Your task to perform on an android device: Open the phone app and click the voicemail tab. Image 0: 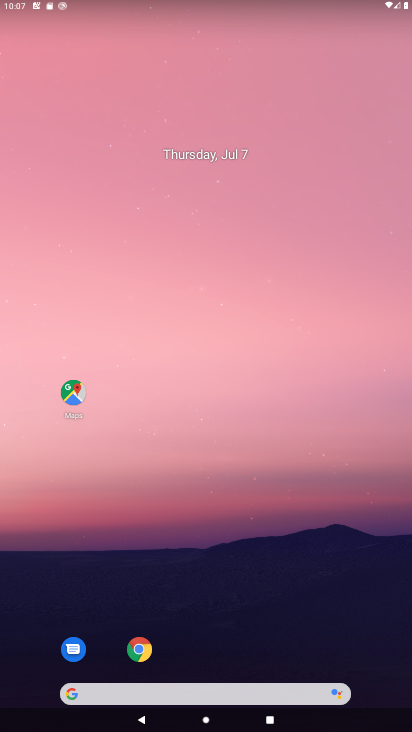
Step 0: drag from (284, 645) to (266, 296)
Your task to perform on an android device: Open the phone app and click the voicemail tab. Image 1: 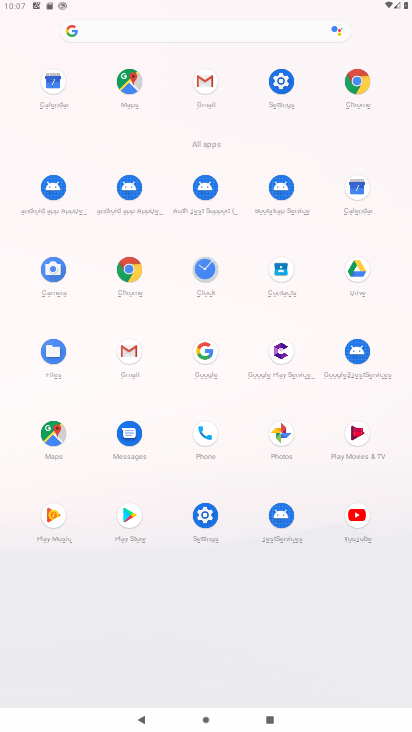
Step 1: click (207, 434)
Your task to perform on an android device: Open the phone app and click the voicemail tab. Image 2: 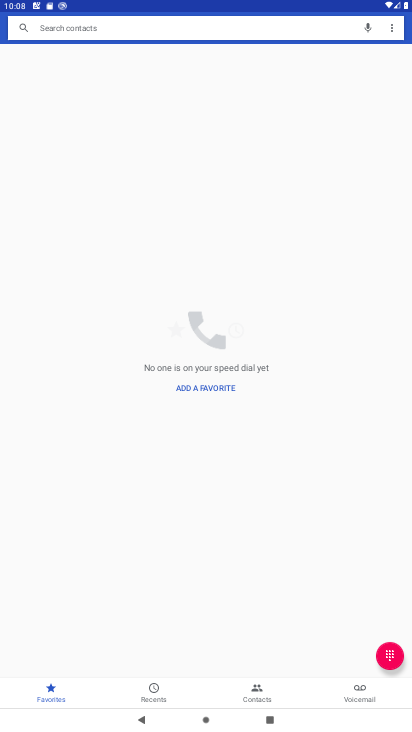
Step 2: click (356, 689)
Your task to perform on an android device: Open the phone app and click the voicemail tab. Image 3: 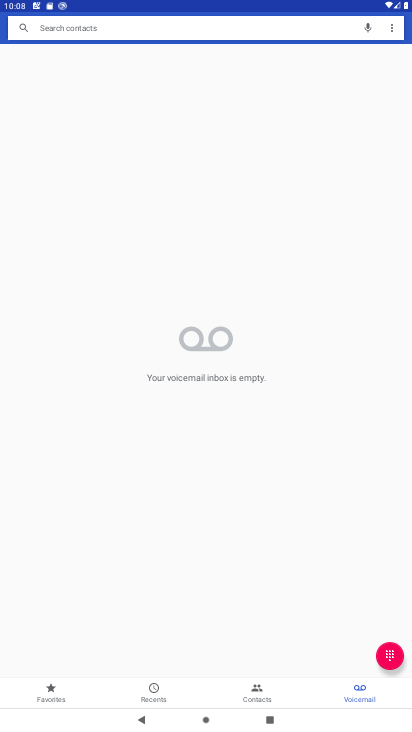
Step 3: task complete